Your task to perform on an android device: refresh tabs in the chrome app Image 0: 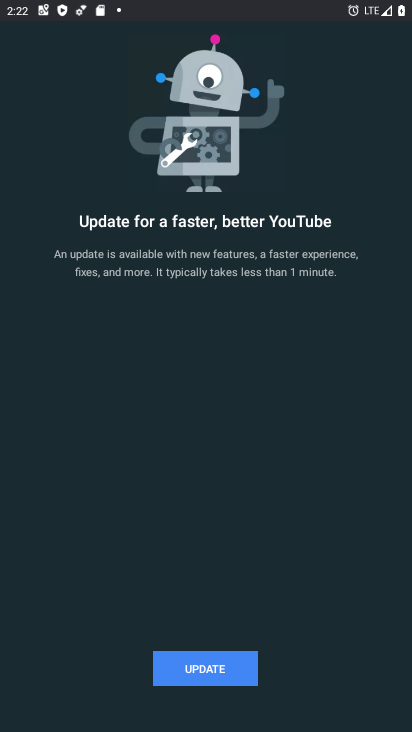
Step 0: press home button
Your task to perform on an android device: refresh tabs in the chrome app Image 1: 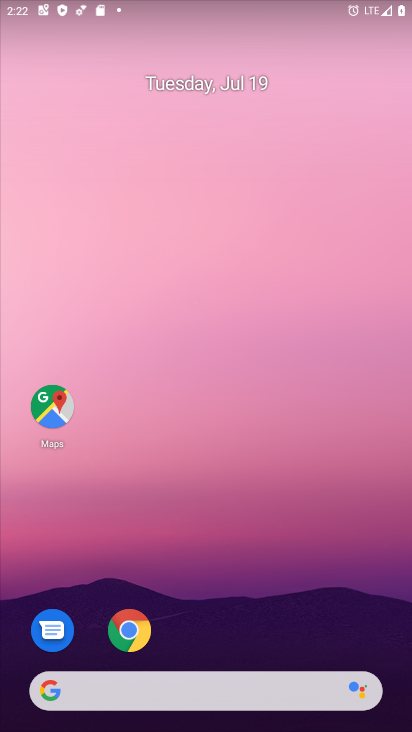
Step 1: click (126, 623)
Your task to perform on an android device: refresh tabs in the chrome app Image 2: 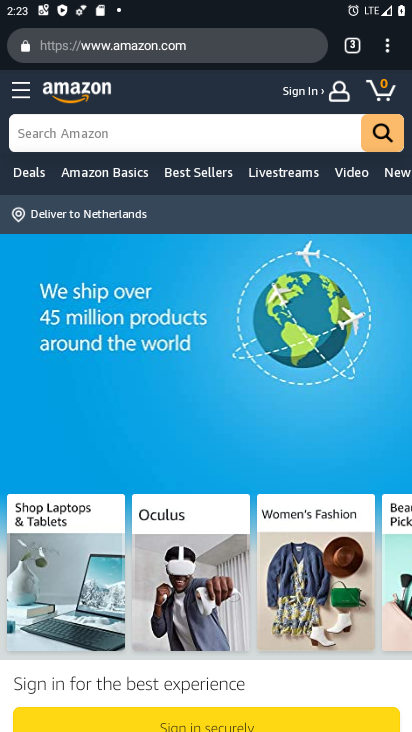
Step 2: click (388, 47)
Your task to perform on an android device: refresh tabs in the chrome app Image 3: 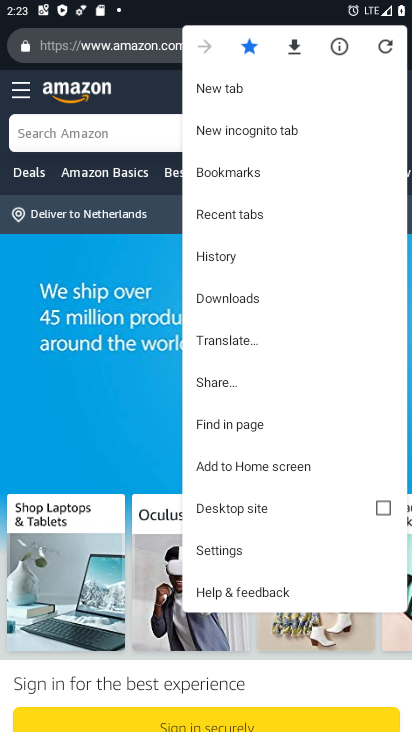
Step 3: click (381, 43)
Your task to perform on an android device: refresh tabs in the chrome app Image 4: 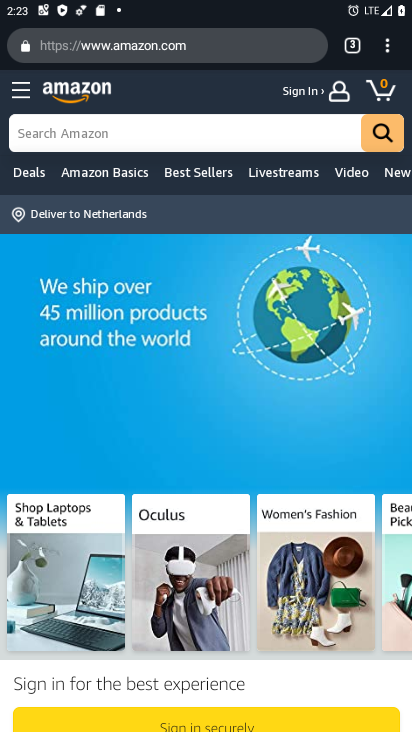
Step 4: task complete